Your task to perform on an android device: all mails in gmail Image 0: 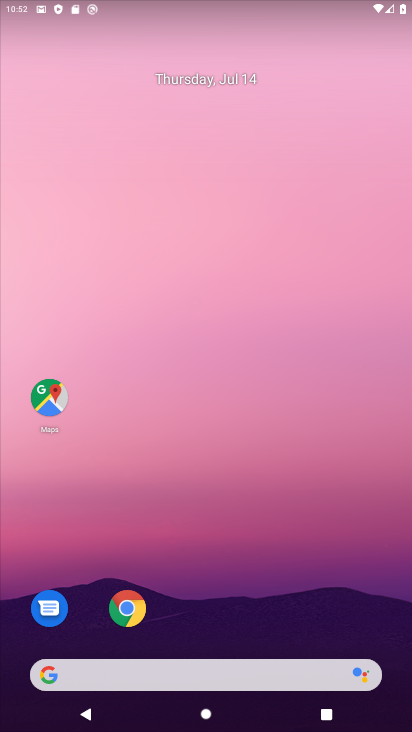
Step 0: drag from (258, 587) to (185, 141)
Your task to perform on an android device: all mails in gmail Image 1: 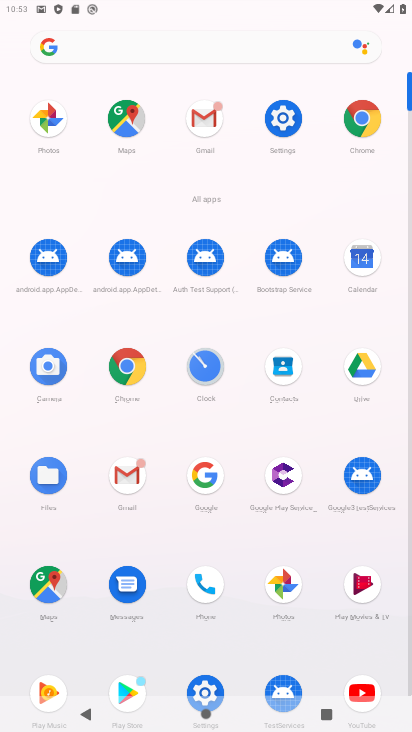
Step 1: click (197, 124)
Your task to perform on an android device: all mails in gmail Image 2: 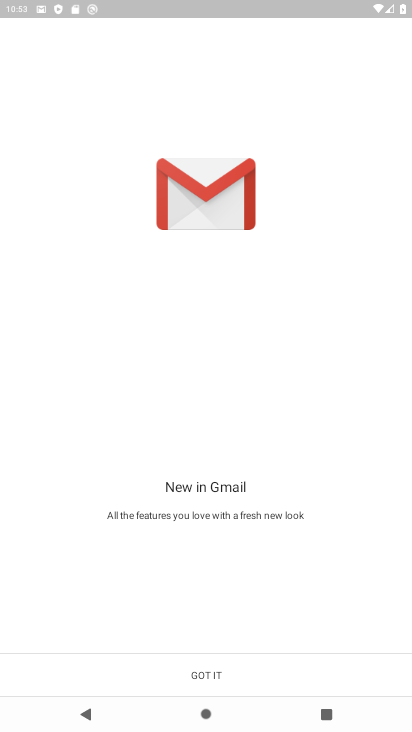
Step 2: click (207, 679)
Your task to perform on an android device: all mails in gmail Image 3: 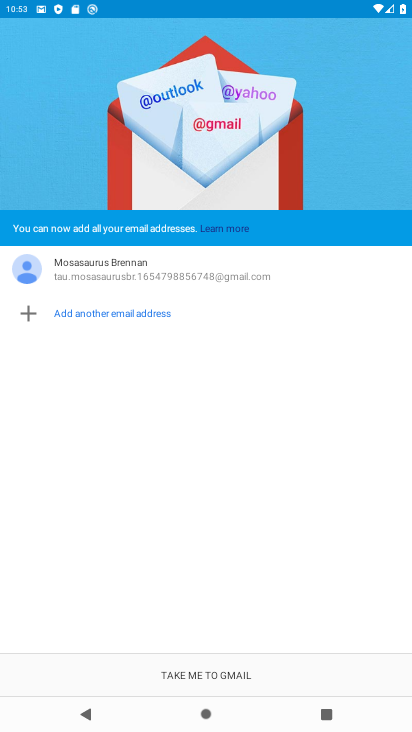
Step 3: click (197, 667)
Your task to perform on an android device: all mails in gmail Image 4: 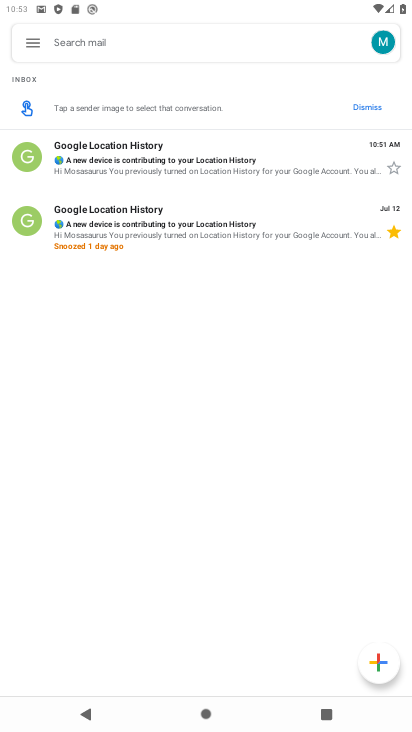
Step 4: click (28, 39)
Your task to perform on an android device: all mails in gmail Image 5: 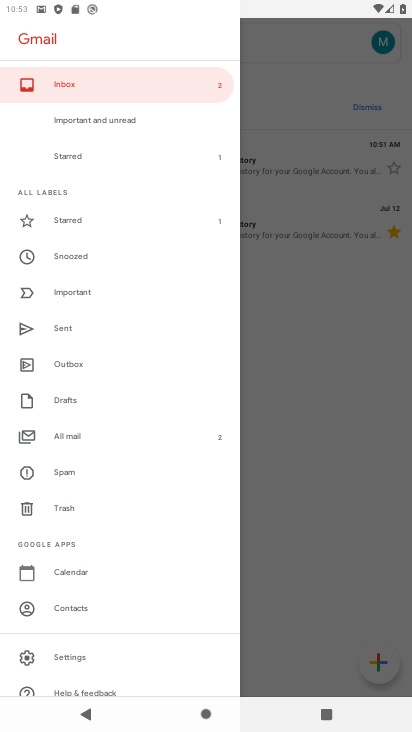
Step 5: click (60, 435)
Your task to perform on an android device: all mails in gmail Image 6: 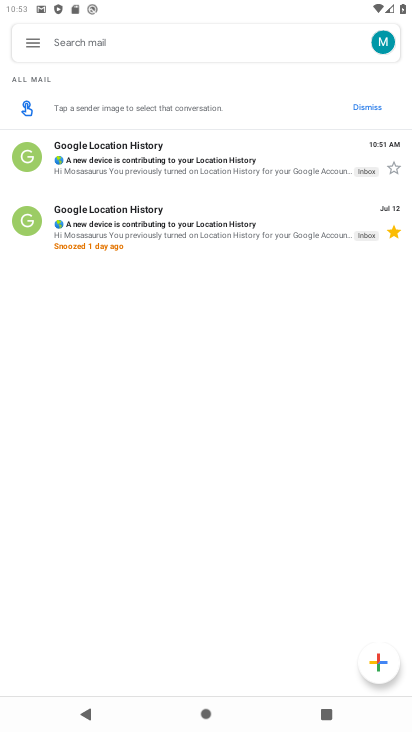
Step 6: task complete